Your task to perform on an android device: open a new tab in the chrome app Image 0: 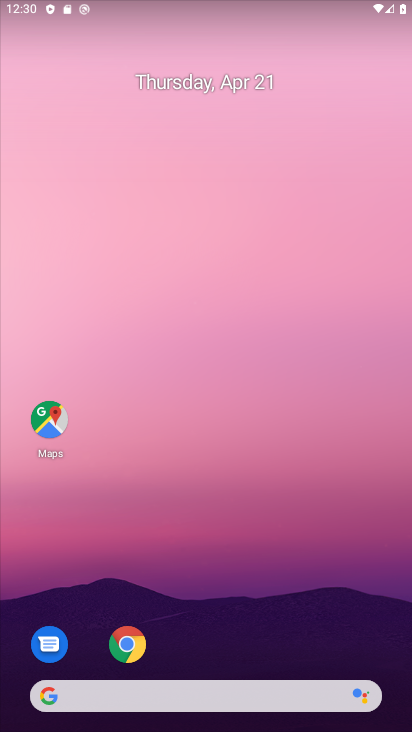
Step 0: click (131, 643)
Your task to perform on an android device: open a new tab in the chrome app Image 1: 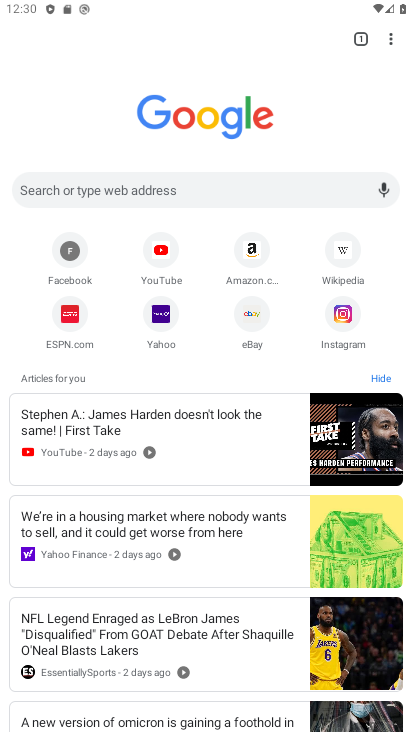
Step 1: task complete